Your task to perform on an android device: Set the phone to "Do not disturb". Image 0: 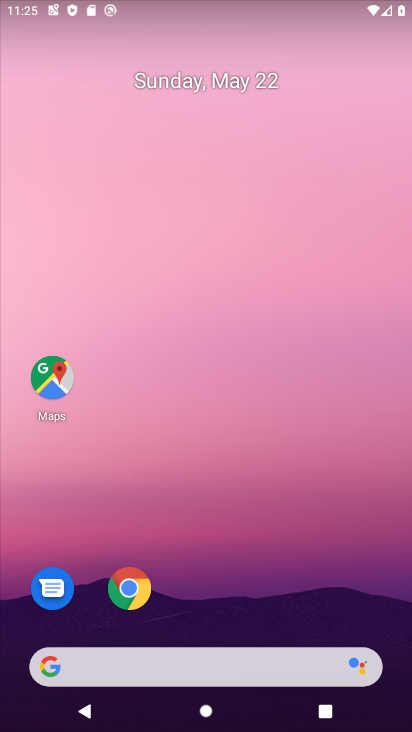
Step 0: drag from (244, 641) to (221, 202)
Your task to perform on an android device: Set the phone to "Do not disturb". Image 1: 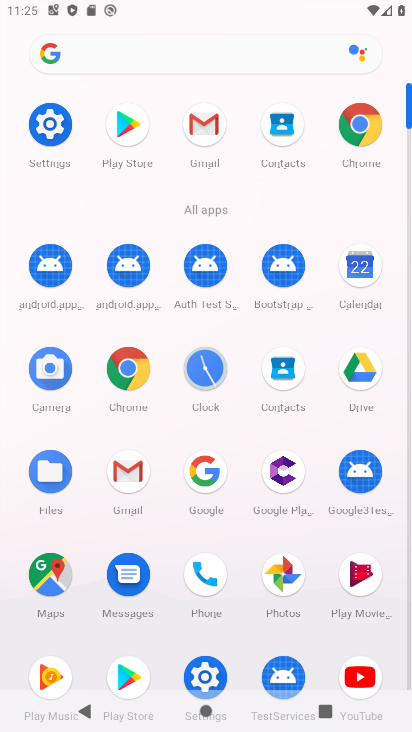
Step 1: click (47, 125)
Your task to perform on an android device: Set the phone to "Do not disturb". Image 2: 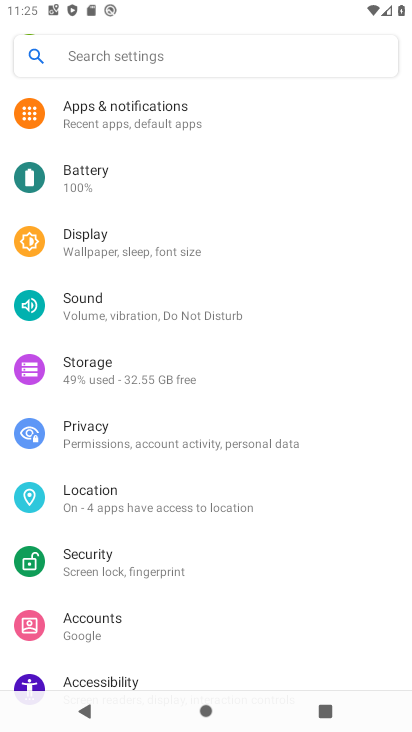
Step 2: click (130, 311)
Your task to perform on an android device: Set the phone to "Do not disturb". Image 3: 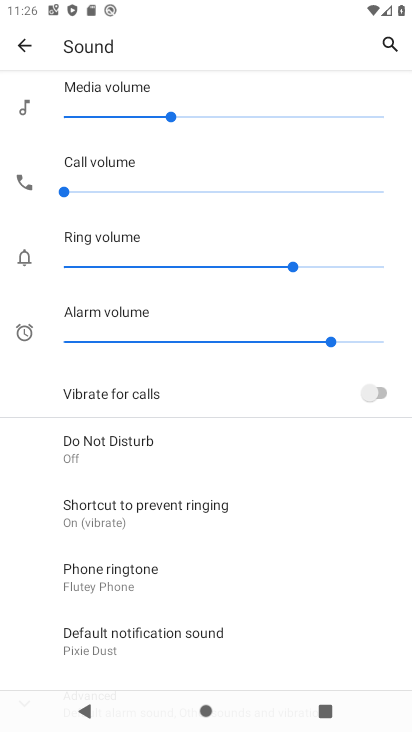
Step 3: click (135, 441)
Your task to perform on an android device: Set the phone to "Do not disturb". Image 4: 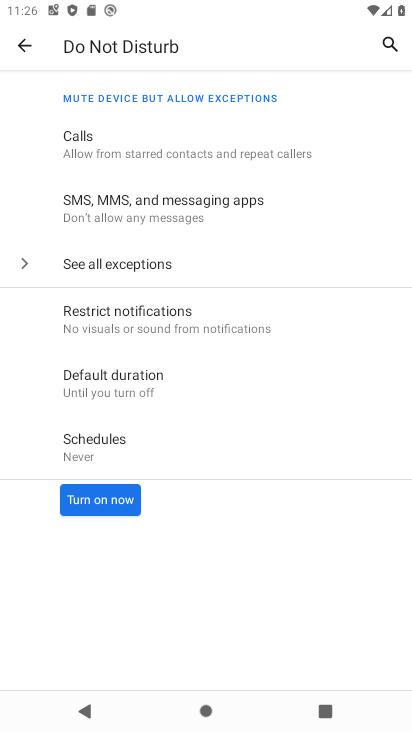
Step 4: click (105, 500)
Your task to perform on an android device: Set the phone to "Do not disturb". Image 5: 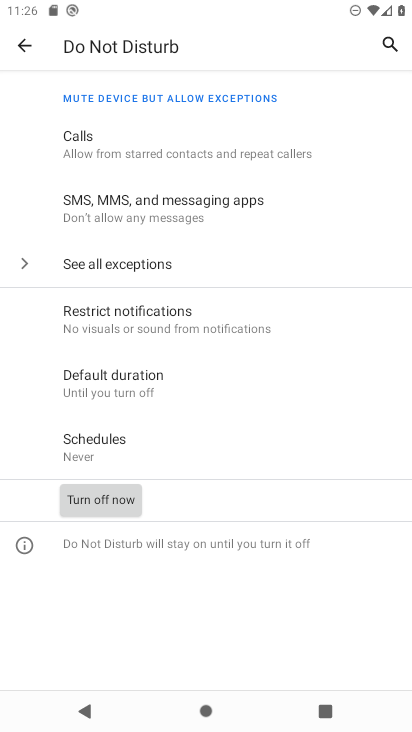
Step 5: task complete